Your task to perform on an android device: Go to Android settings Image 0: 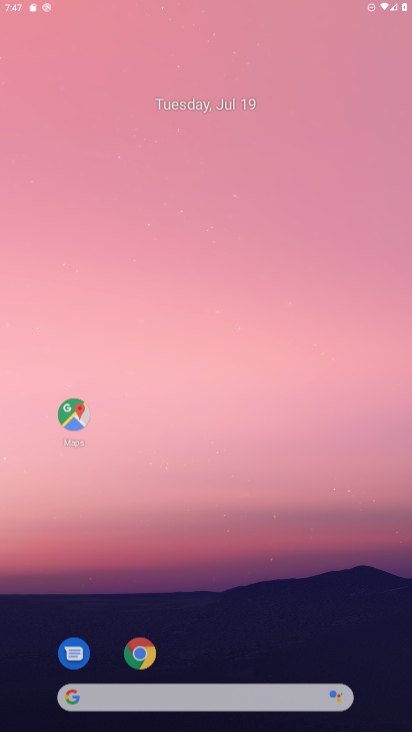
Step 0: click (222, 245)
Your task to perform on an android device: Go to Android settings Image 1: 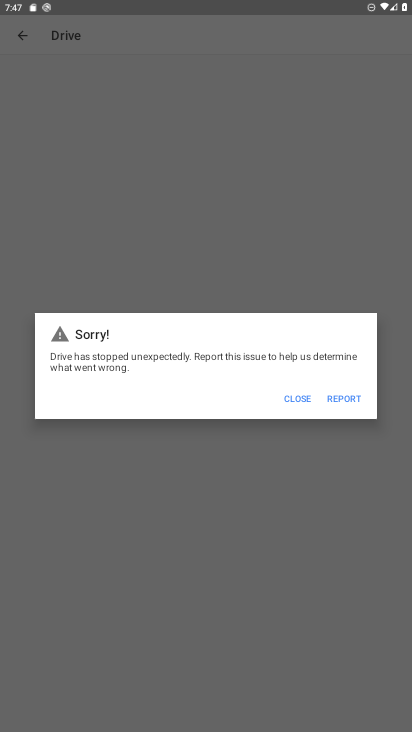
Step 1: press home button
Your task to perform on an android device: Go to Android settings Image 2: 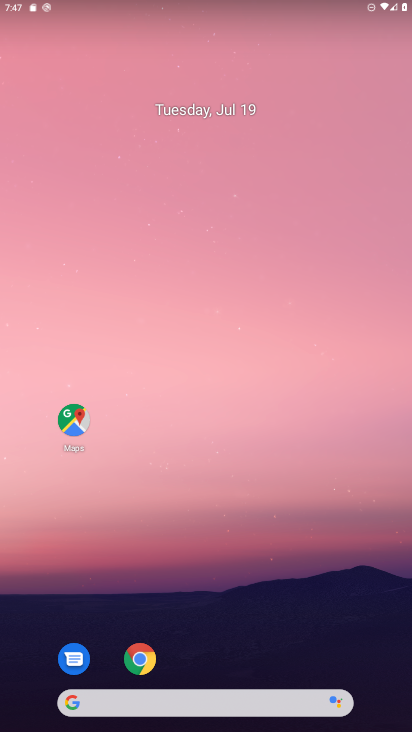
Step 2: drag from (224, 636) to (231, 127)
Your task to perform on an android device: Go to Android settings Image 3: 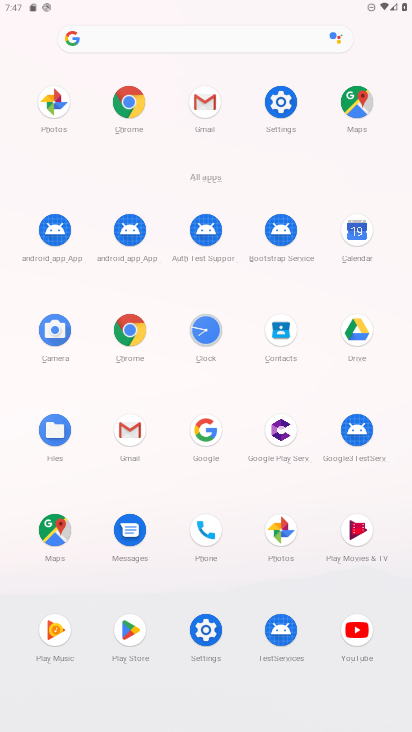
Step 3: click (281, 102)
Your task to perform on an android device: Go to Android settings Image 4: 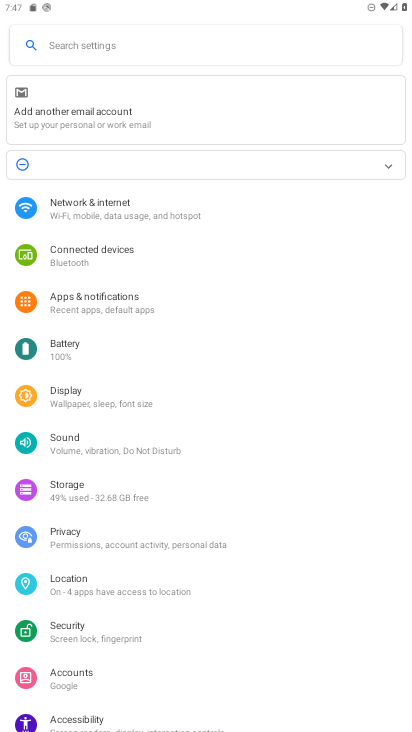
Step 4: task complete